Your task to perform on an android device: open app "Microsoft Authenticator" (install if not already installed) Image 0: 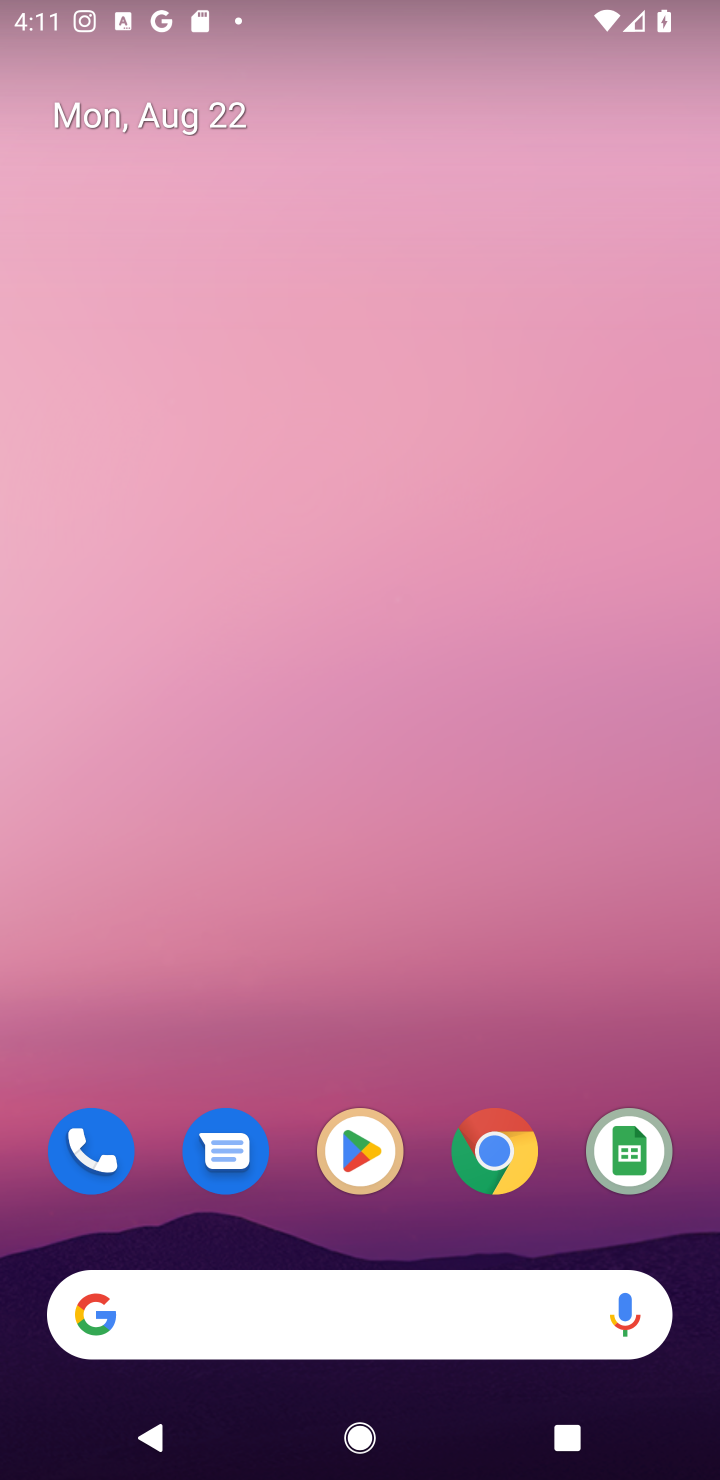
Step 0: click (368, 1148)
Your task to perform on an android device: open app "Microsoft Authenticator" (install if not already installed) Image 1: 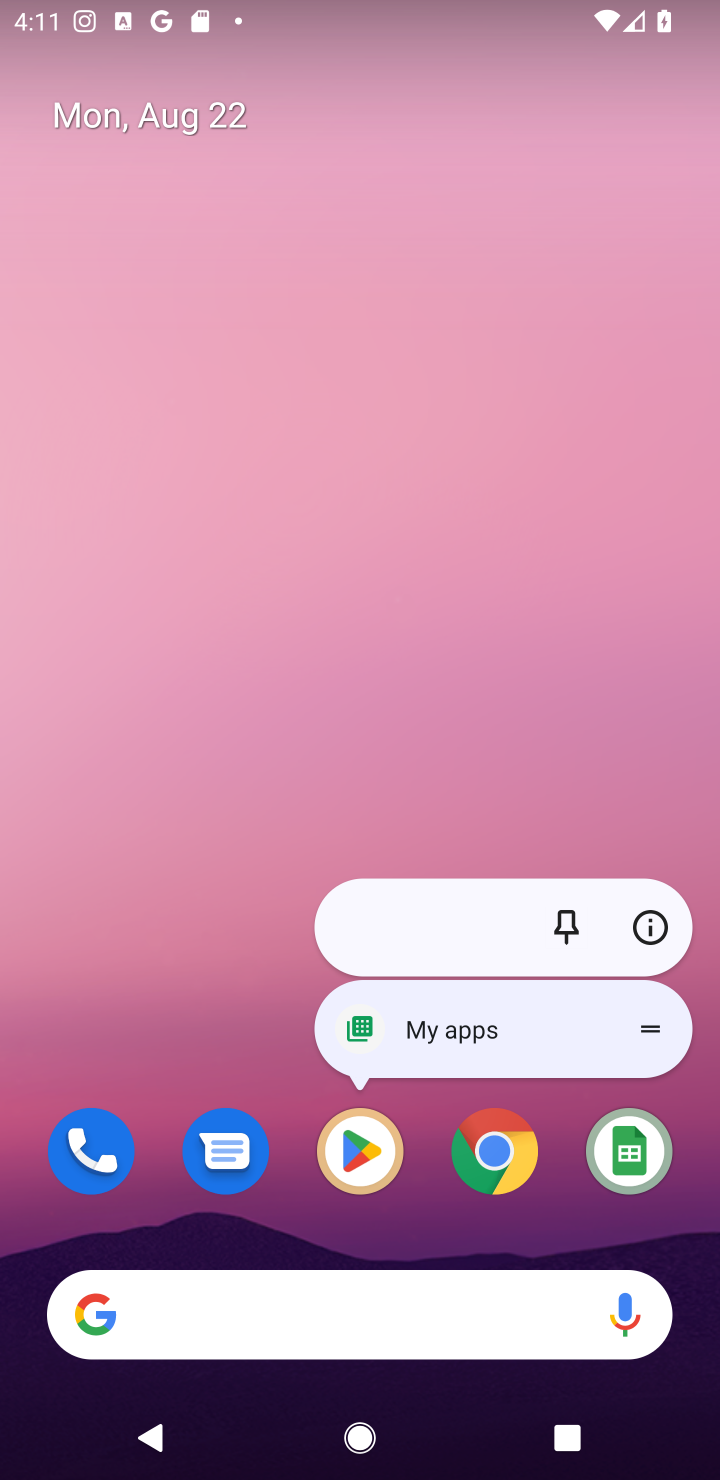
Step 1: click (360, 1154)
Your task to perform on an android device: open app "Microsoft Authenticator" (install if not already installed) Image 2: 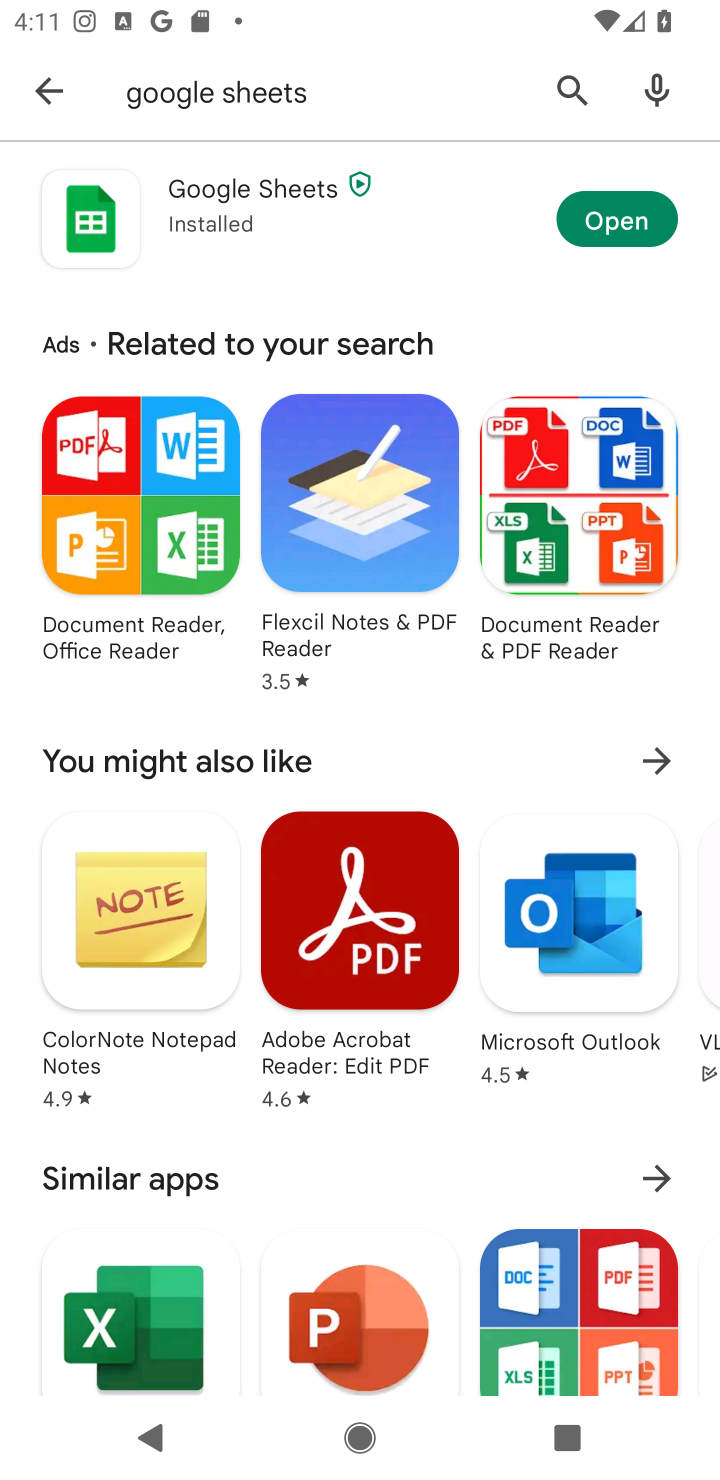
Step 2: click (569, 71)
Your task to perform on an android device: open app "Microsoft Authenticator" (install if not already installed) Image 3: 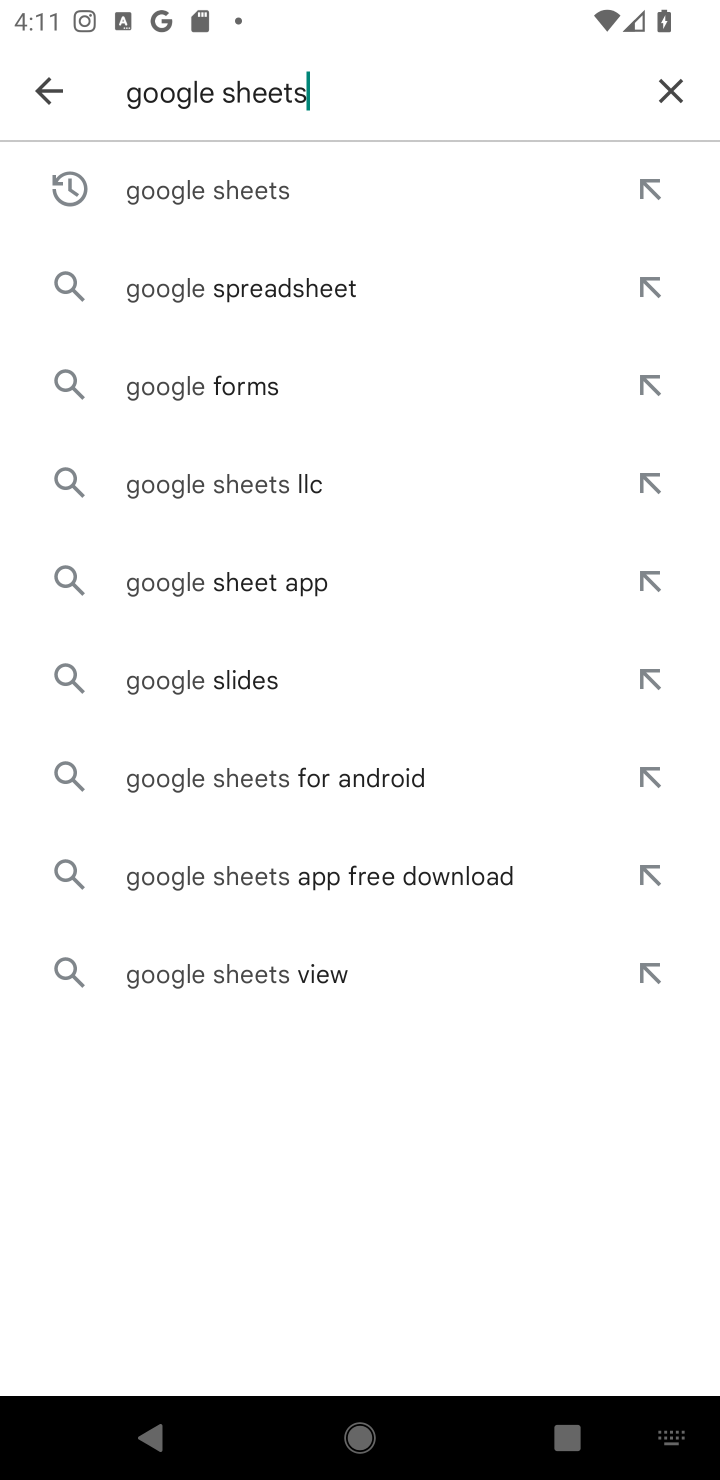
Step 3: click (656, 65)
Your task to perform on an android device: open app "Microsoft Authenticator" (install if not already installed) Image 4: 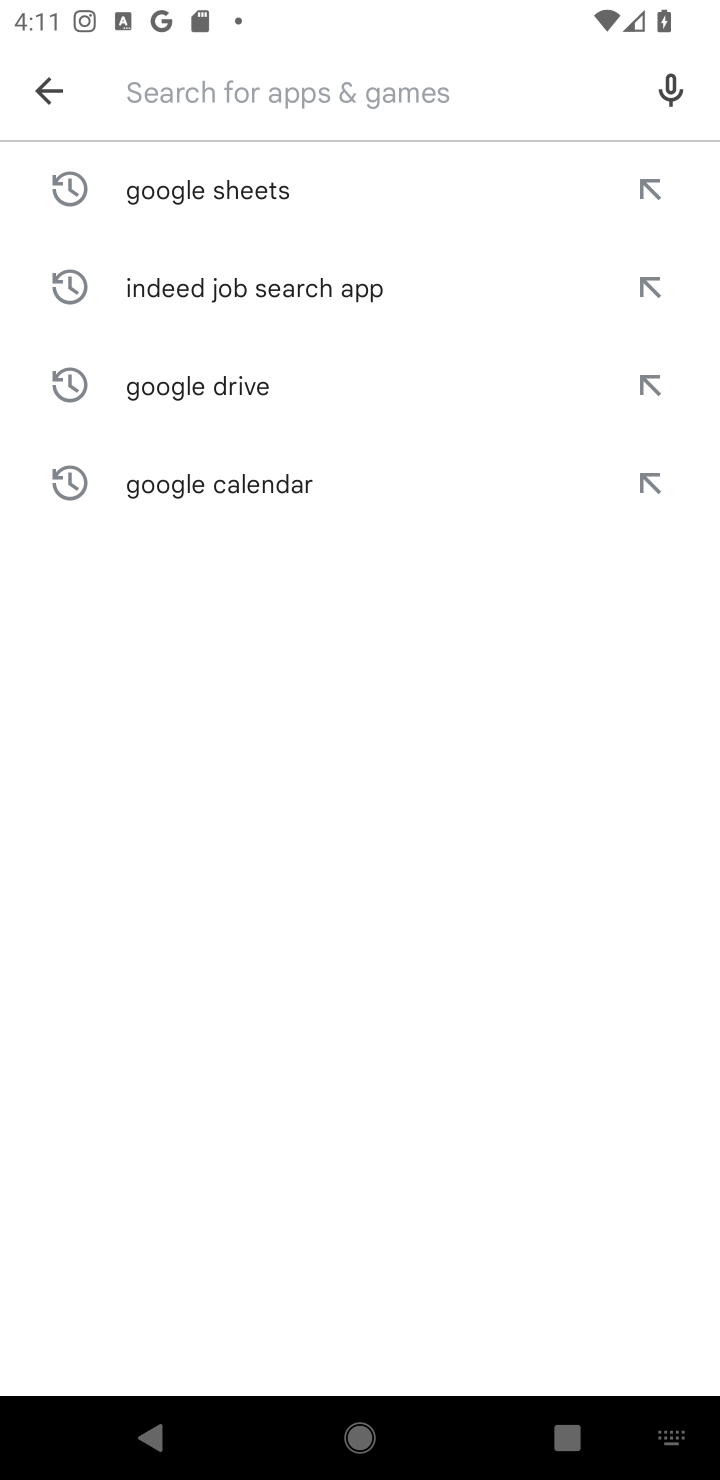
Step 4: type "Microsoft Authenticator"
Your task to perform on an android device: open app "Microsoft Authenticator" (install if not already installed) Image 5: 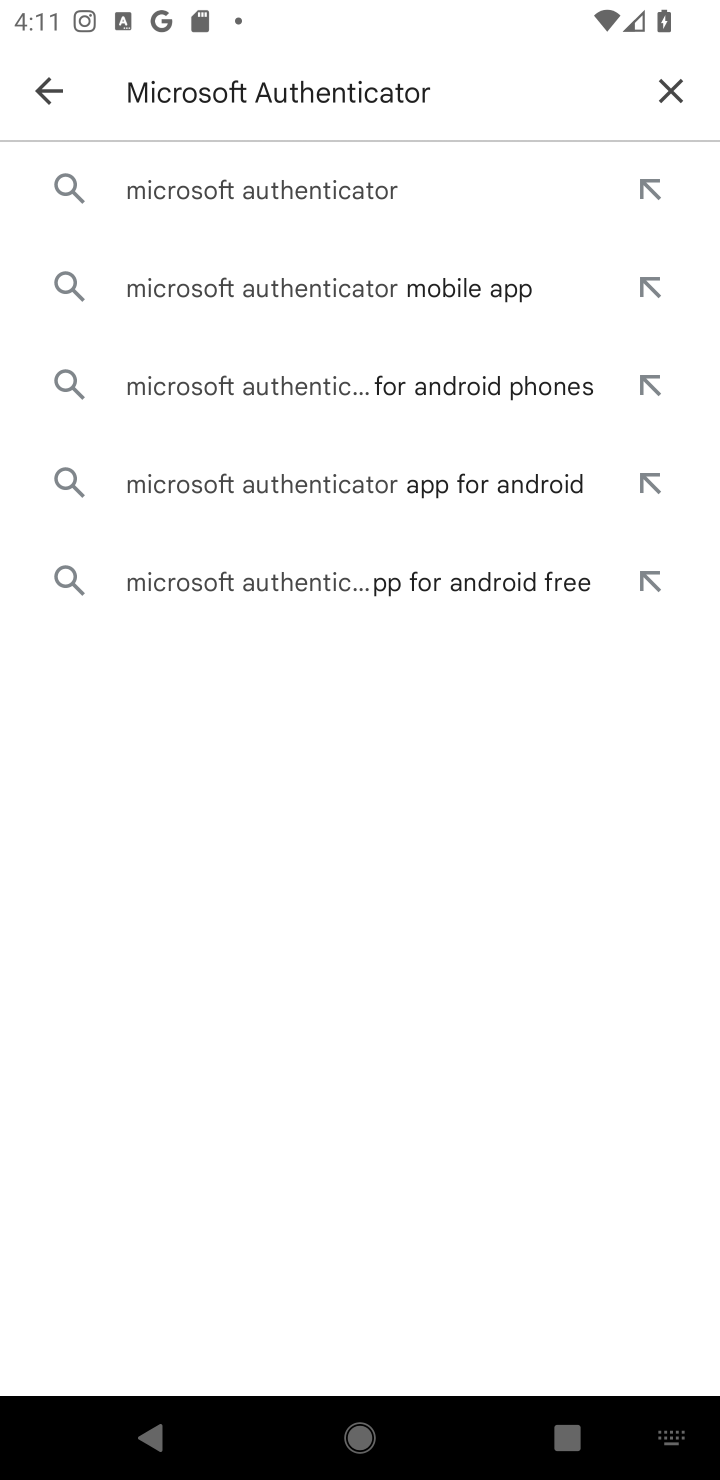
Step 5: click (319, 191)
Your task to perform on an android device: open app "Microsoft Authenticator" (install if not already installed) Image 6: 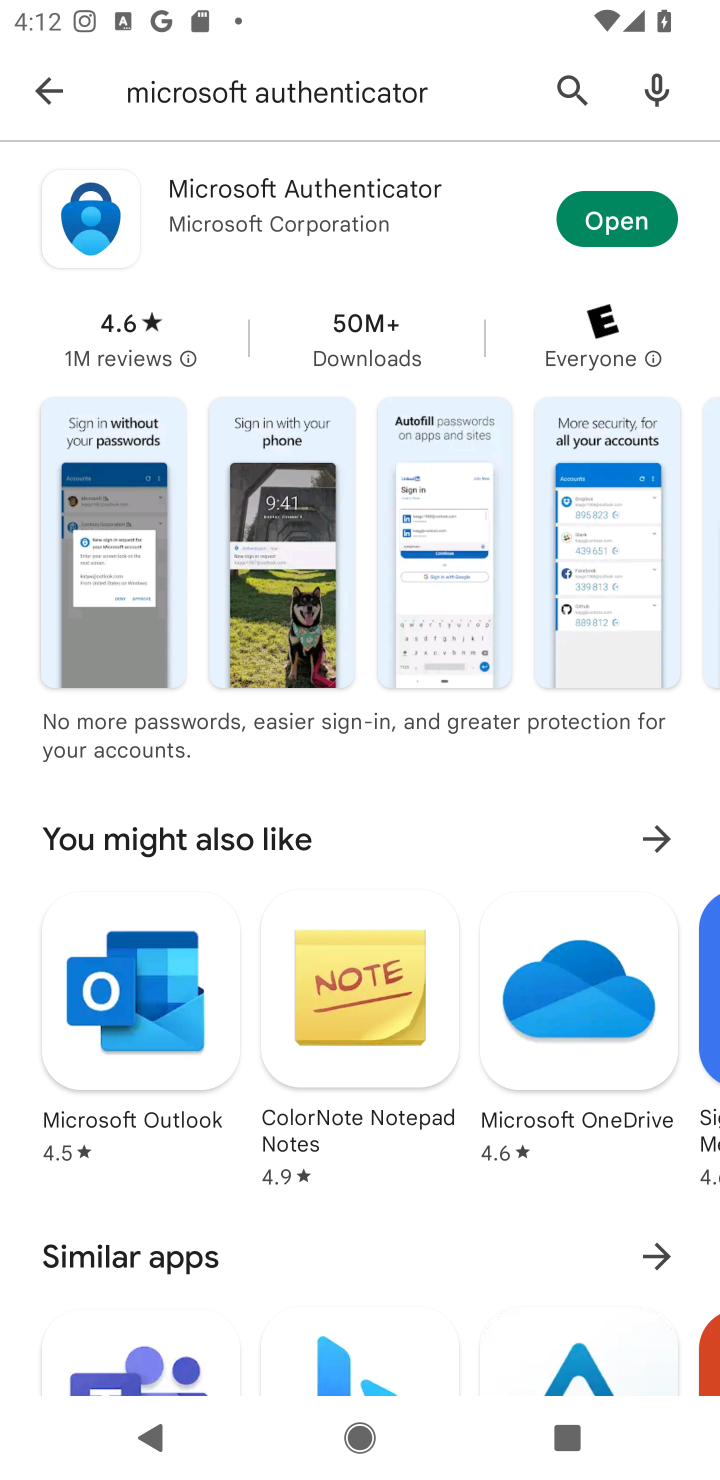
Step 6: click (651, 218)
Your task to perform on an android device: open app "Microsoft Authenticator" (install if not already installed) Image 7: 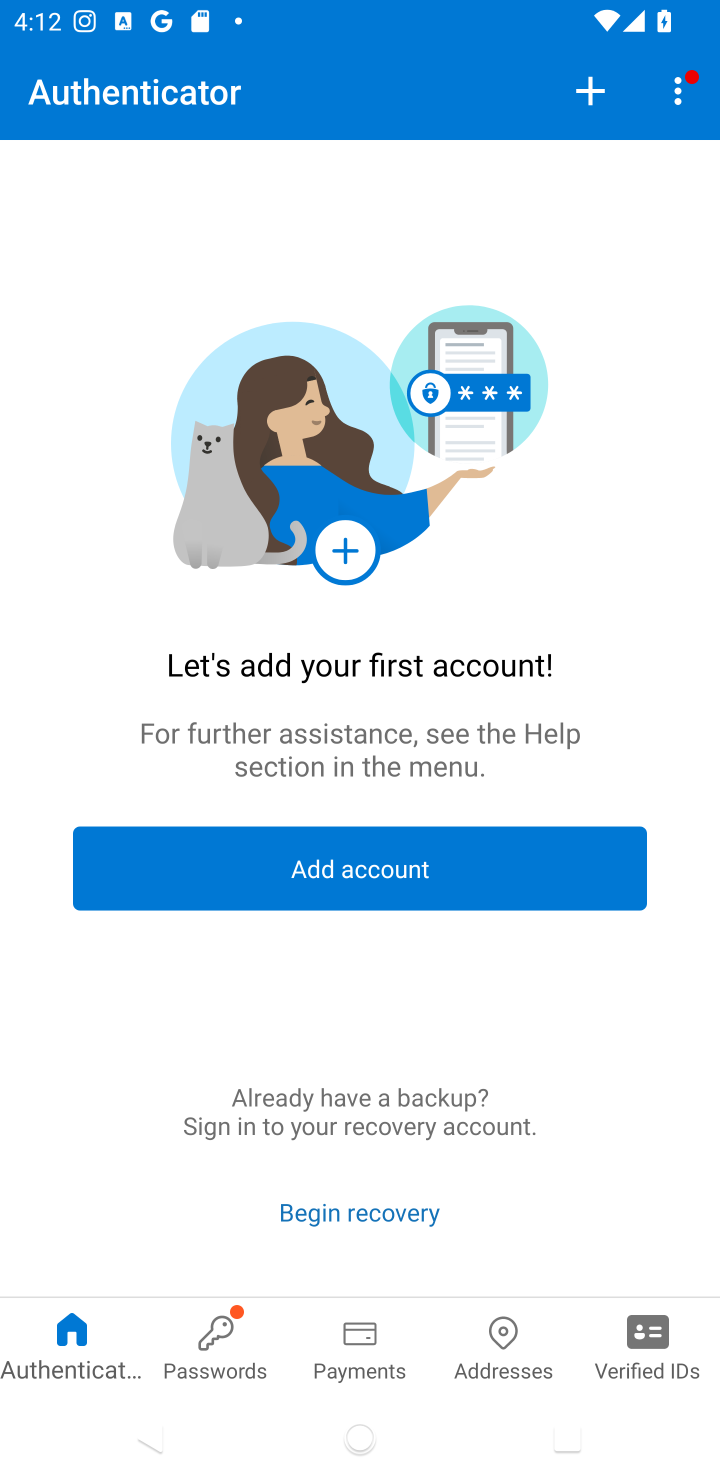
Step 7: task complete